Your task to perform on an android device: turn off wifi Image 0: 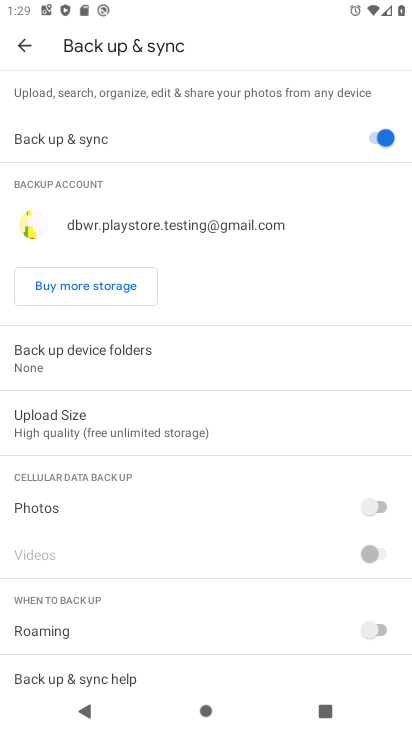
Step 0: press home button
Your task to perform on an android device: turn off wifi Image 1: 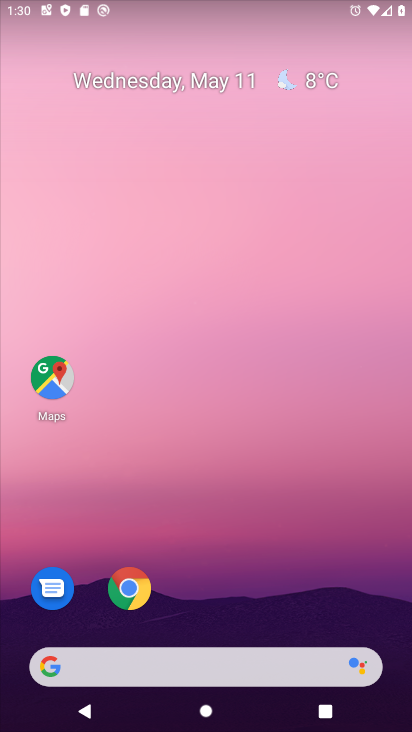
Step 1: drag from (321, 629) to (296, 98)
Your task to perform on an android device: turn off wifi Image 2: 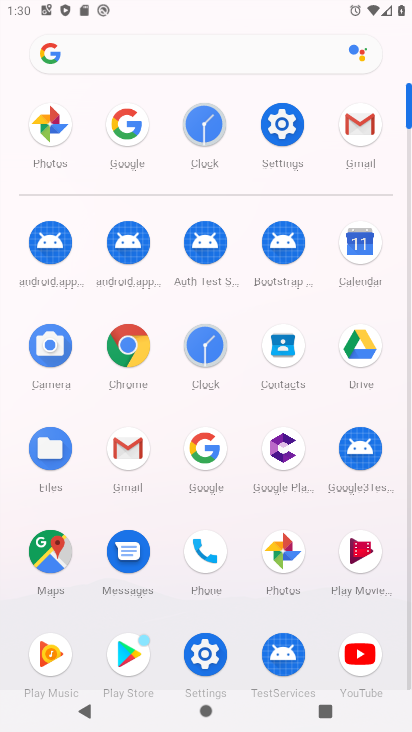
Step 2: click (273, 126)
Your task to perform on an android device: turn off wifi Image 3: 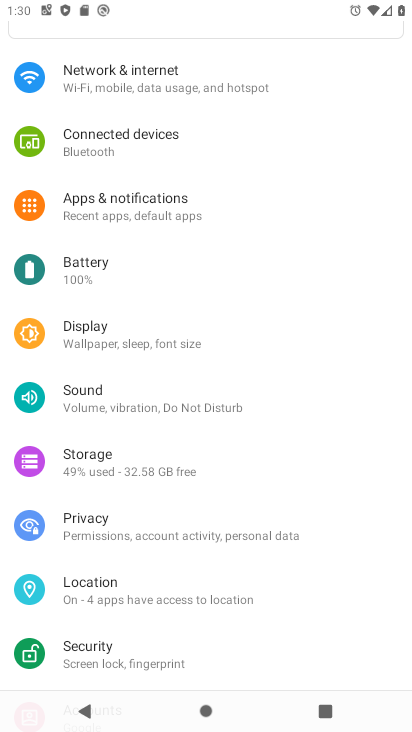
Step 3: click (110, 93)
Your task to perform on an android device: turn off wifi Image 4: 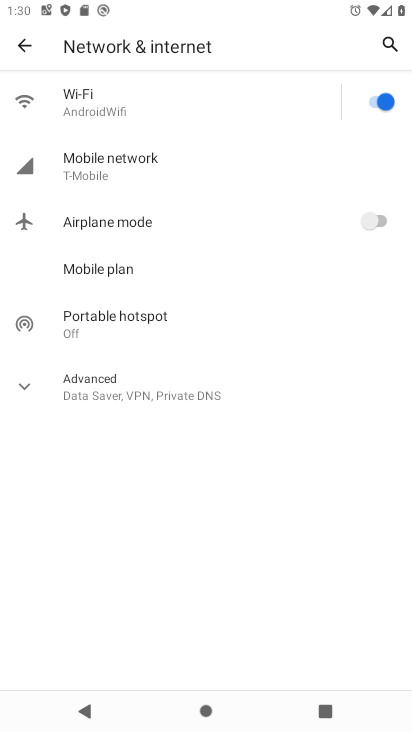
Step 4: click (384, 105)
Your task to perform on an android device: turn off wifi Image 5: 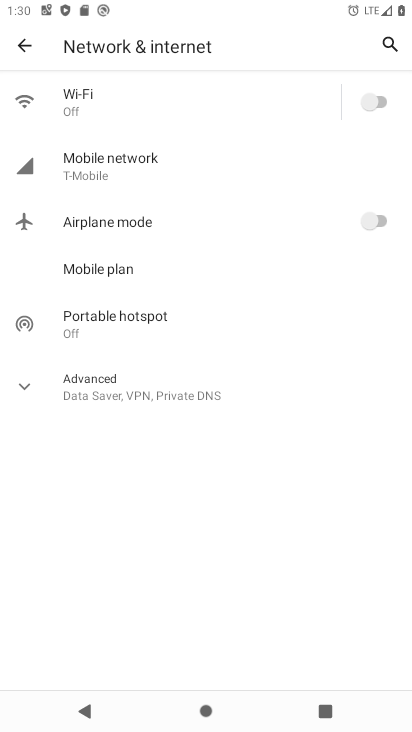
Step 5: task complete